Your task to perform on an android device: turn off sleep mode Image 0: 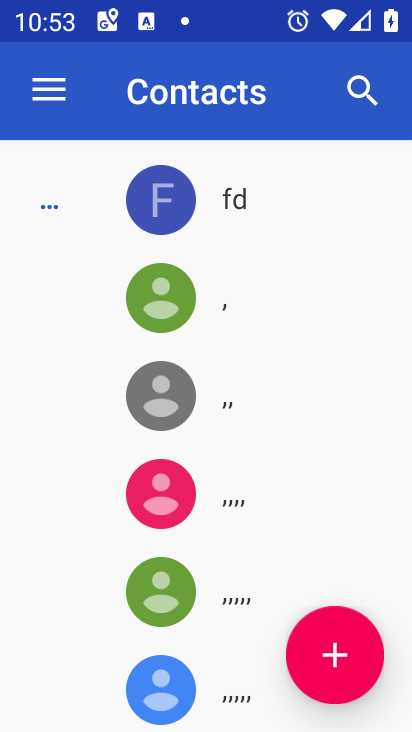
Step 0: drag from (246, 656) to (246, 416)
Your task to perform on an android device: turn off sleep mode Image 1: 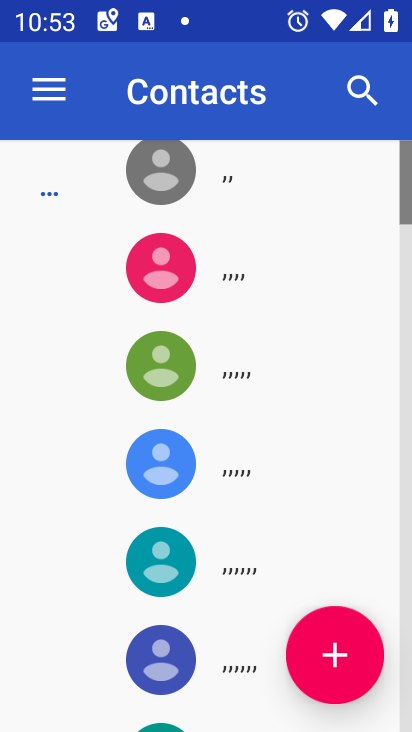
Step 1: press home button
Your task to perform on an android device: turn off sleep mode Image 2: 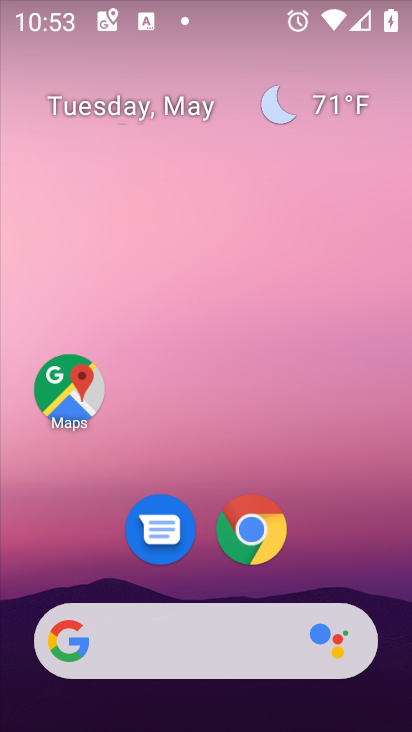
Step 2: drag from (262, 628) to (262, 201)
Your task to perform on an android device: turn off sleep mode Image 3: 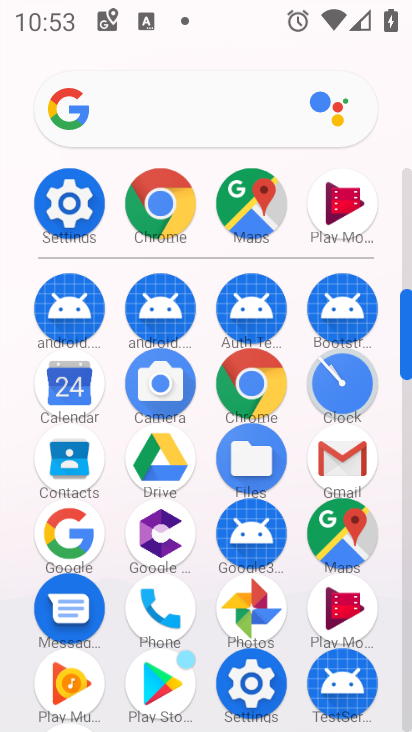
Step 3: click (80, 221)
Your task to perform on an android device: turn off sleep mode Image 4: 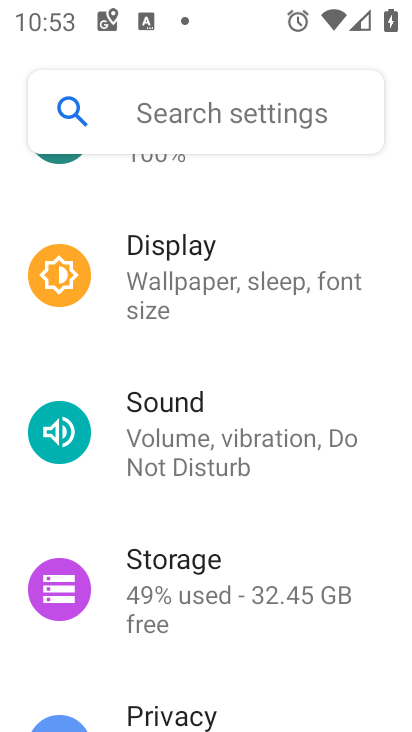
Step 4: click (211, 299)
Your task to perform on an android device: turn off sleep mode Image 5: 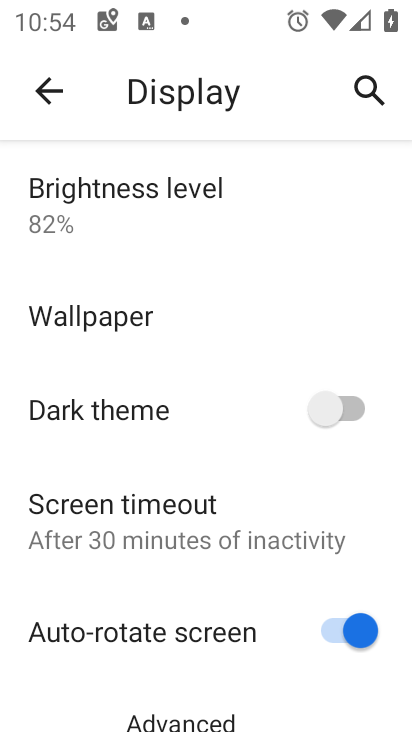
Step 5: drag from (171, 552) to (238, 240)
Your task to perform on an android device: turn off sleep mode Image 6: 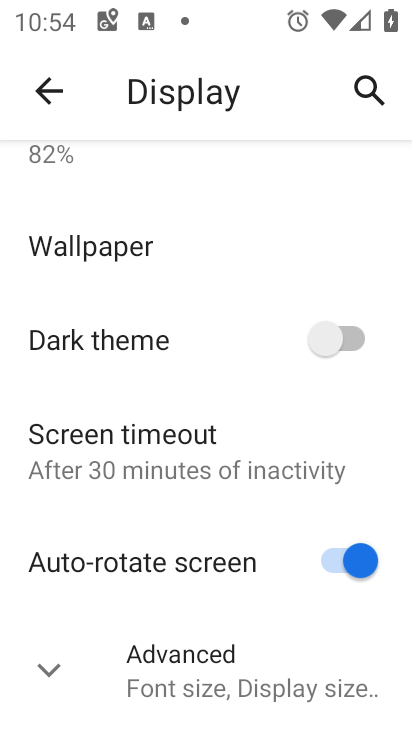
Step 6: click (207, 676)
Your task to perform on an android device: turn off sleep mode Image 7: 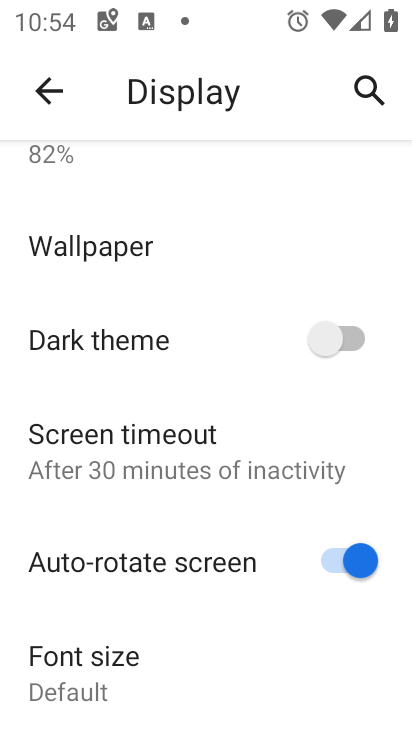
Step 7: task complete